Your task to perform on an android device: open a bookmark in the chrome app Image 0: 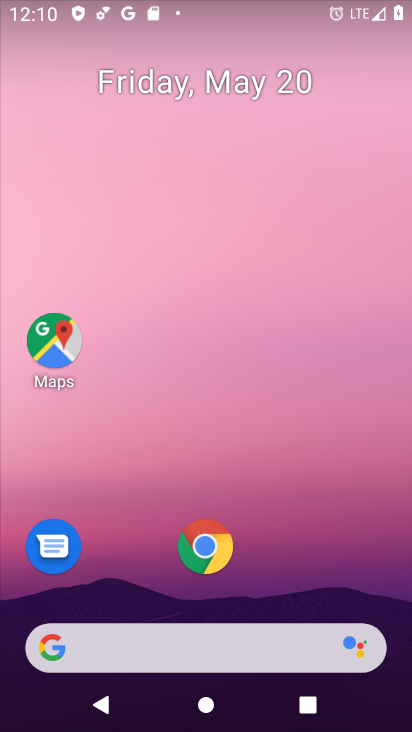
Step 0: click (205, 538)
Your task to perform on an android device: open a bookmark in the chrome app Image 1: 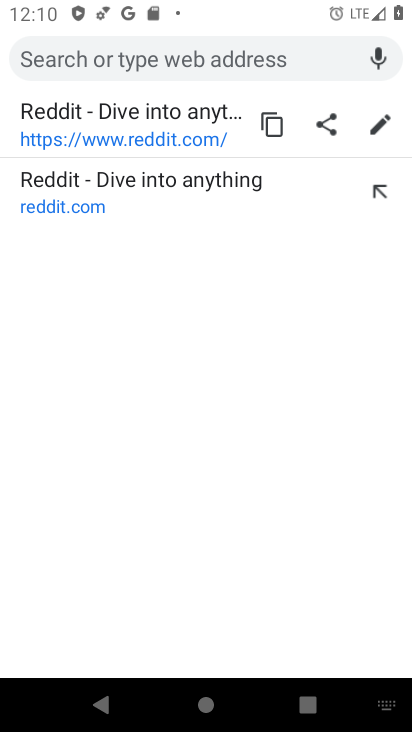
Step 1: task complete